Your task to perform on an android device: Open ESPN.com Image 0: 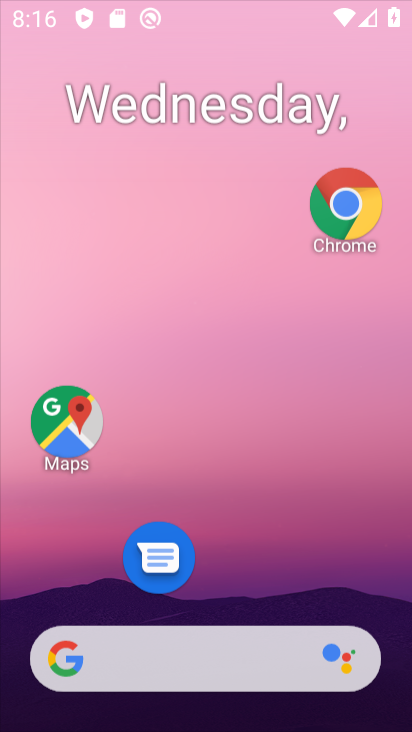
Step 0: click (225, 50)
Your task to perform on an android device: Open ESPN.com Image 1: 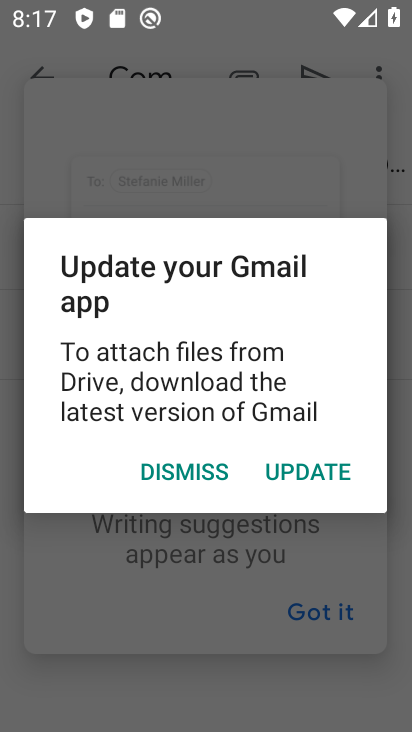
Step 1: press home button
Your task to perform on an android device: Open ESPN.com Image 2: 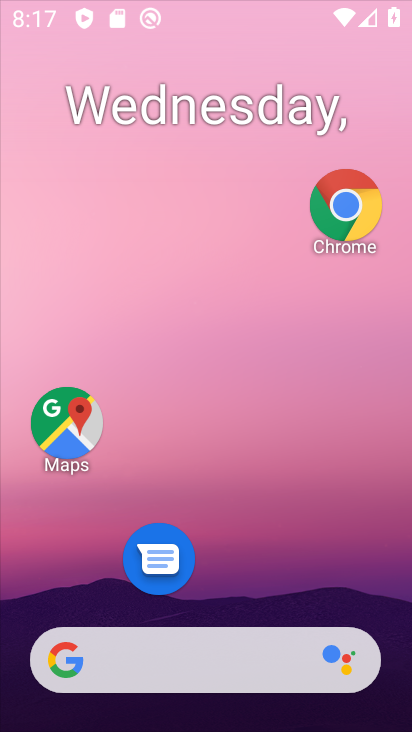
Step 2: drag from (219, 608) to (339, 63)
Your task to perform on an android device: Open ESPN.com Image 3: 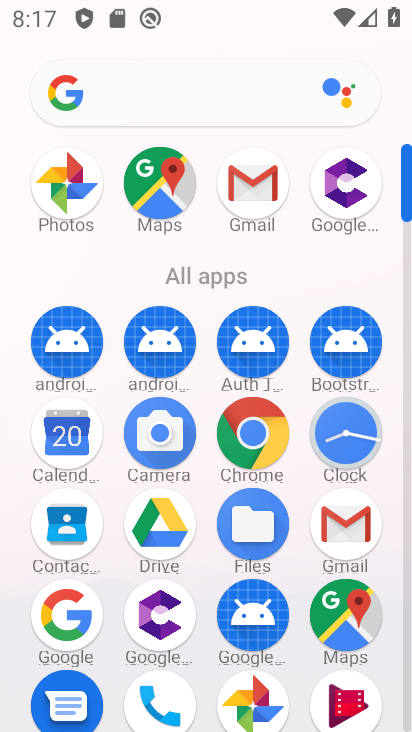
Step 3: click (236, 433)
Your task to perform on an android device: Open ESPN.com Image 4: 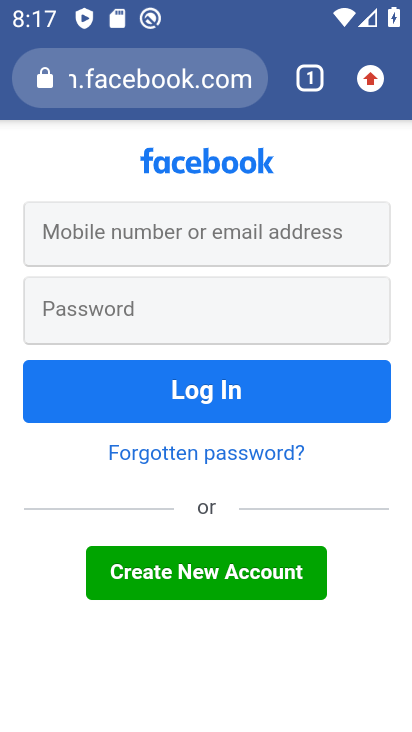
Step 4: click (185, 83)
Your task to perform on an android device: Open ESPN.com Image 5: 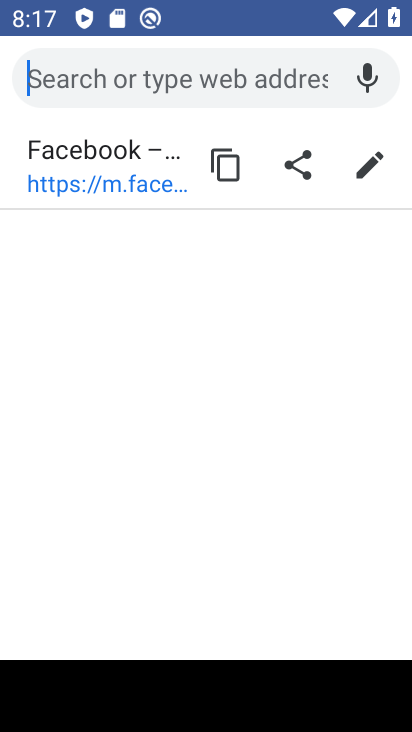
Step 5: type "espn"
Your task to perform on an android device: Open ESPN.com Image 6: 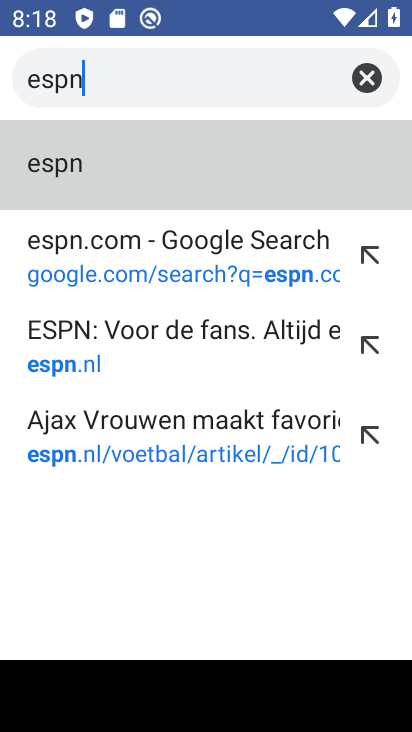
Step 6: click (73, 162)
Your task to perform on an android device: Open ESPN.com Image 7: 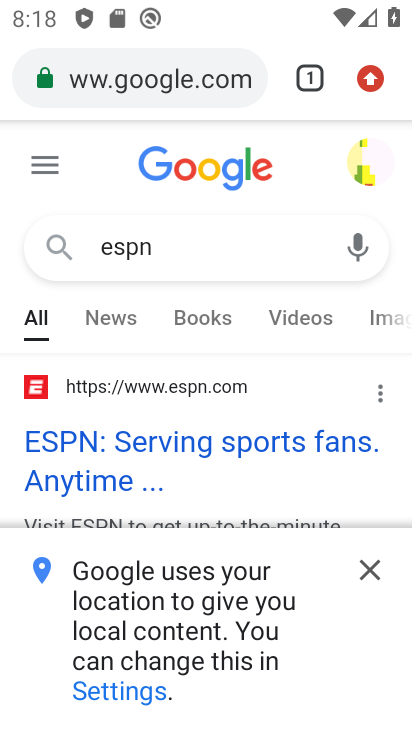
Step 7: click (91, 463)
Your task to perform on an android device: Open ESPN.com Image 8: 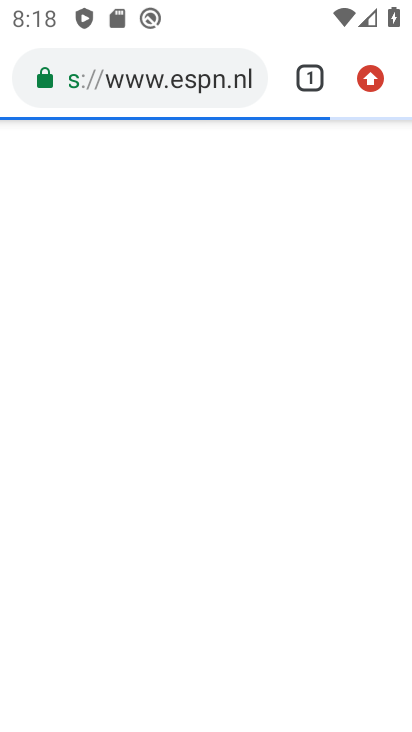
Step 8: task complete